Your task to perform on an android device: Open calendar and show me the fourth week of next month Image 0: 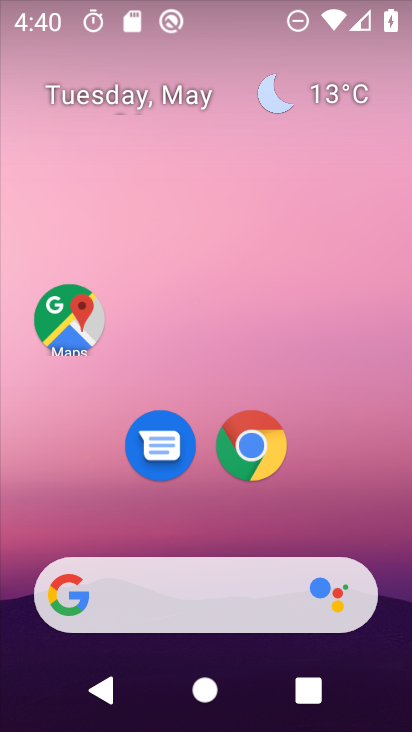
Step 0: press home button
Your task to perform on an android device: Open calendar and show me the fourth week of next month Image 1: 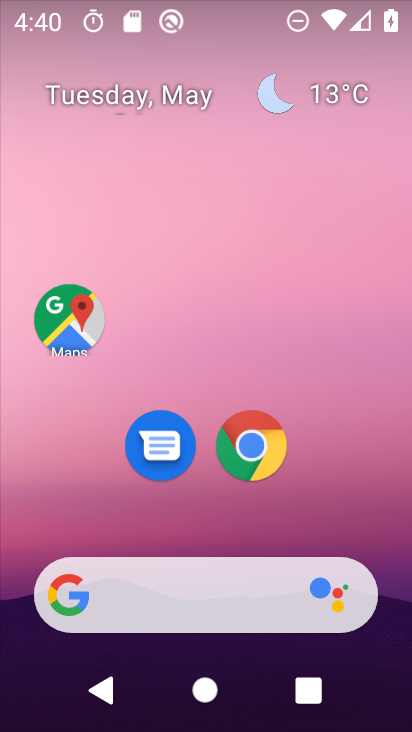
Step 1: drag from (209, 528) to (243, 119)
Your task to perform on an android device: Open calendar and show me the fourth week of next month Image 2: 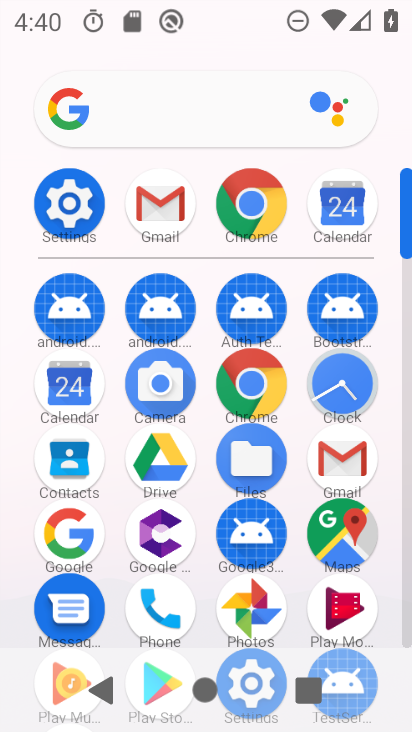
Step 2: click (71, 380)
Your task to perform on an android device: Open calendar and show me the fourth week of next month Image 3: 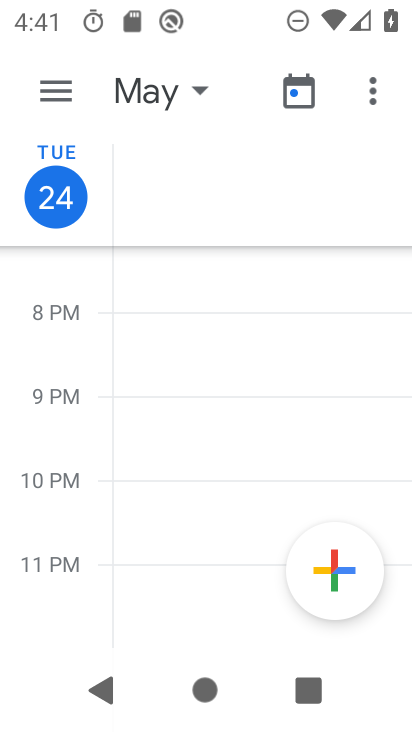
Step 3: click (199, 89)
Your task to perform on an android device: Open calendar and show me the fourth week of next month Image 4: 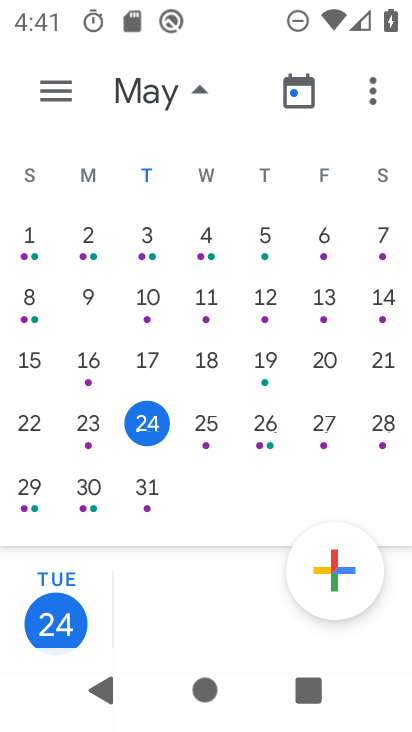
Step 4: drag from (363, 317) to (6, 329)
Your task to perform on an android device: Open calendar and show me the fourth week of next month Image 5: 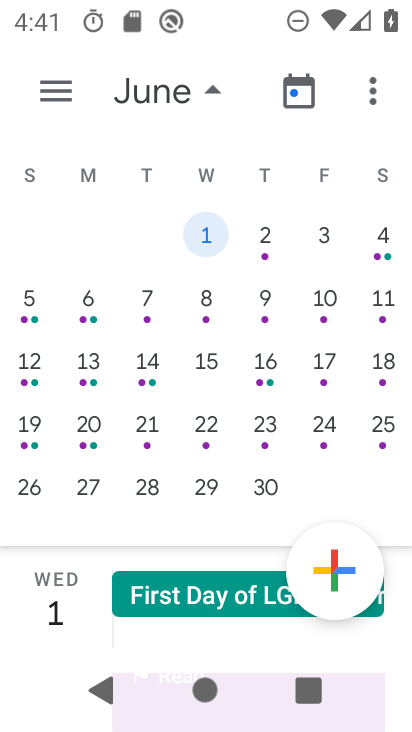
Step 5: click (25, 424)
Your task to perform on an android device: Open calendar and show me the fourth week of next month Image 6: 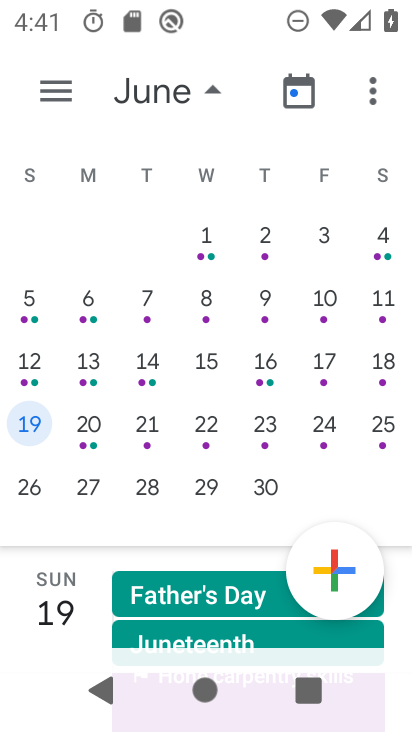
Step 6: click (208, 86)
Your task to perform on an android device: Open calendar and show me the fourth week of next month Image 7: 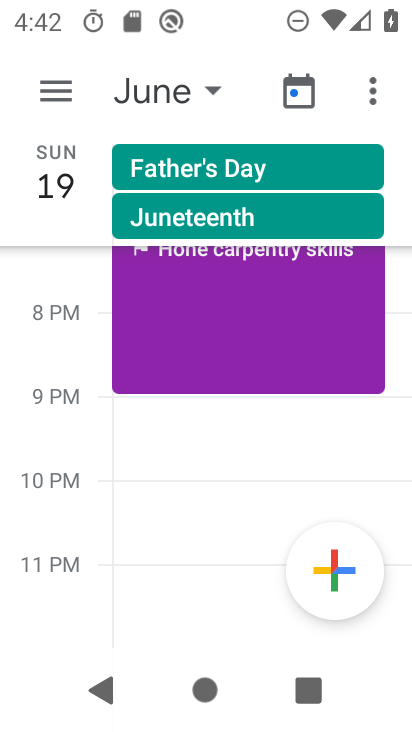
Step 7: click (87, 218)
Your task to perform on an android device: Open calendar and show me the fourth week of next month Image 8: 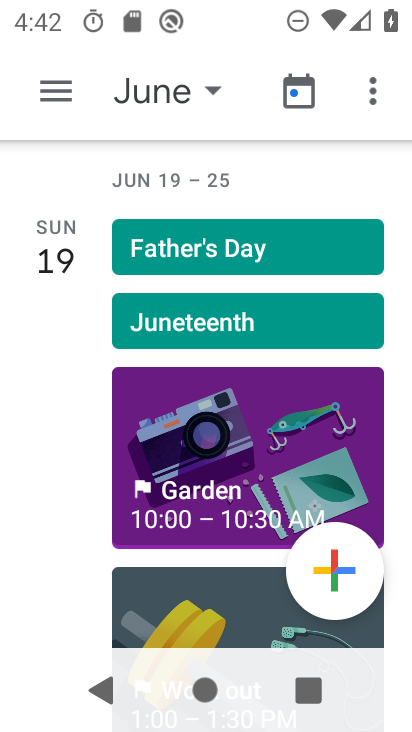
Step 8: drag from (75, 502) to (84, 133)
Your task to perform on an android device: Open calendar and show me the fourth week of next month Image 9: 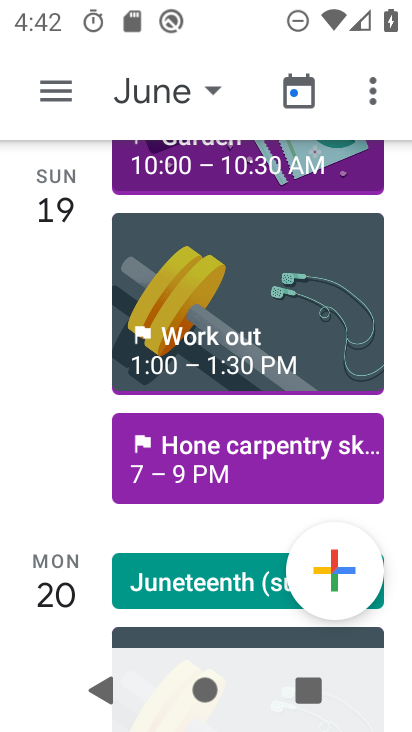
Step 9: drag from (70, 574) to (85, 116)
Your task to perform on an android device: Open calendar and show me the fourth week of next month Image 10: 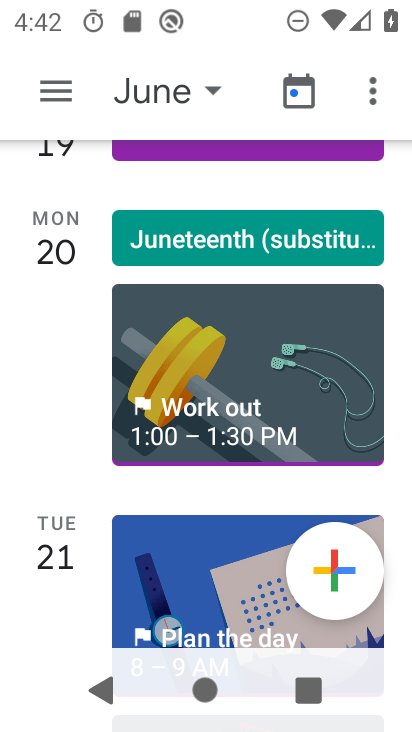
Step 10: drag from (81, 573) to (84, 87)
Your task to perform on an android device: Open calendar and show me the fourth week of next month Image 11: 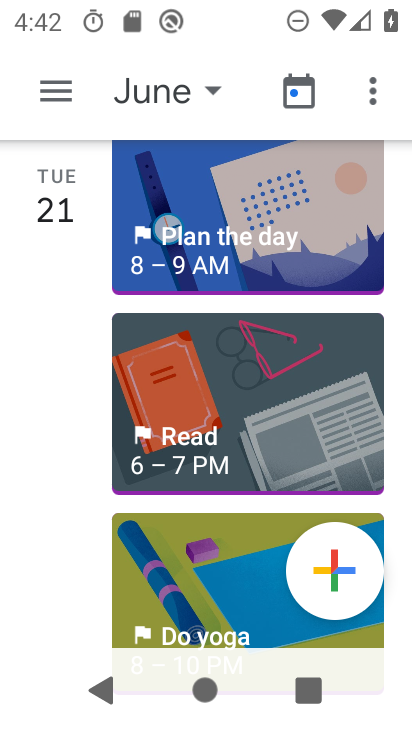
Step 11: drag from (73, 562) to (89, 132)
Your task to perform on an android device: Open calendar and show me the fourth week of next month Image 12: 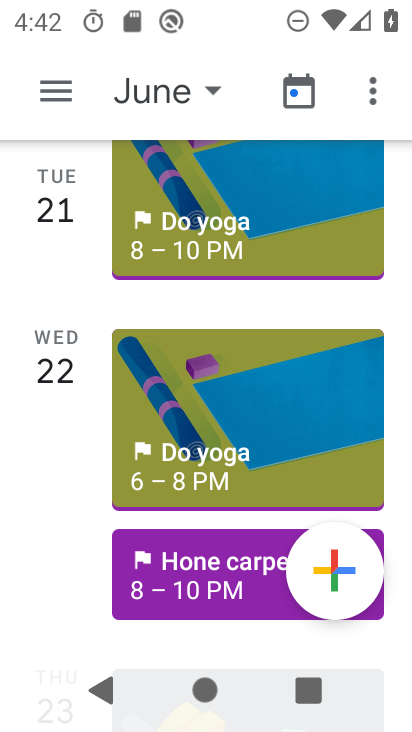
Step 12: drag from (64, 520) to (76, 131)
Your task to perform on an android device: Open calendar and show me the fourth week of next month Image 13: 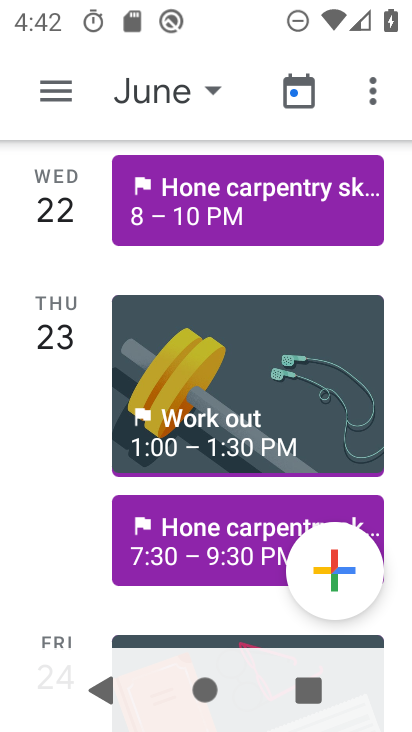
Step 13: click (76, 122)
Your task to perform on an android device: Open calendar and show me the fourth week of next month Image 14: 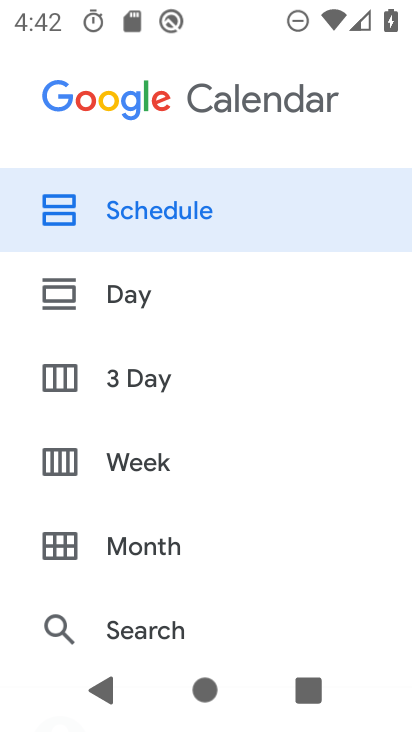
Step 14: click (82, 455)
Your task to perform on an android device: Open calendar and show me the fourth week of next month Image 15: 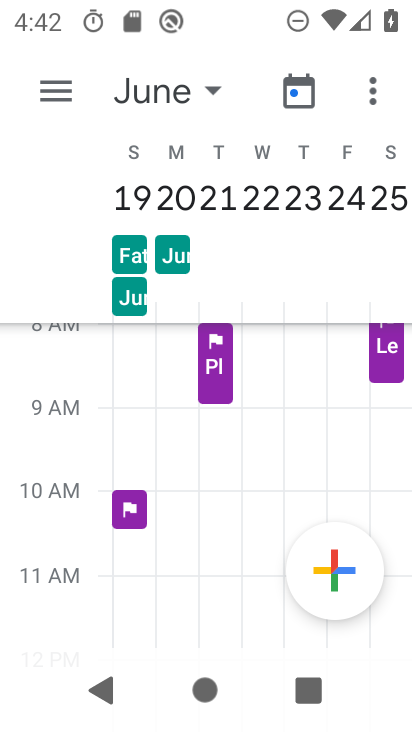
Step 15: click (134, 191)
Your task to perform on an android device: Open calendar and show me the fourth week of next month Image 16: 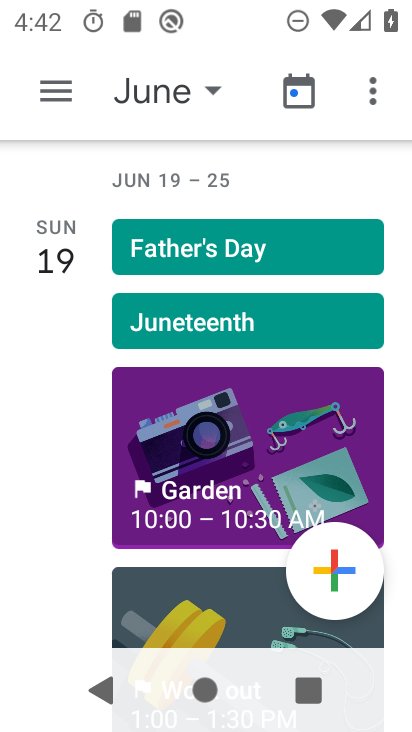
Step 16: task complete